Your task to perform on an android device: find which apps use the phone's location Image 0: 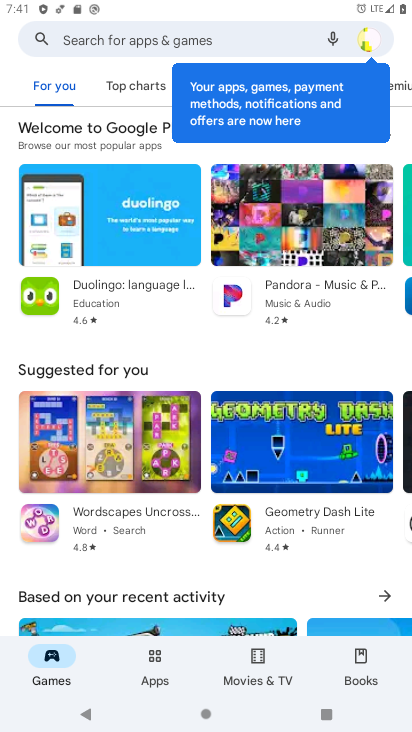
Step 0: press home button
Your task to perform on an android device: find which apps use the phone's location Image 1: 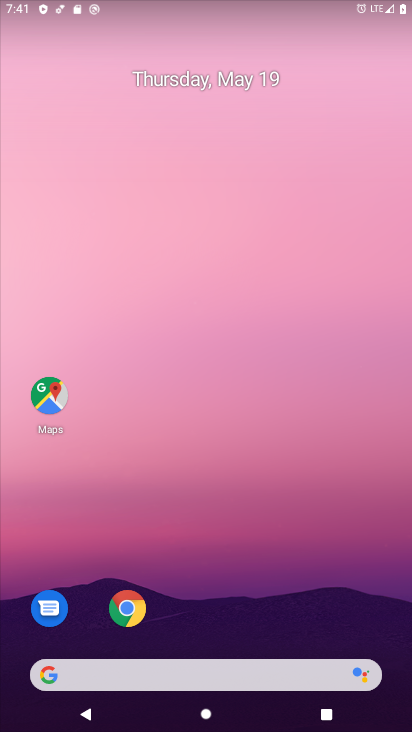
Step 1: drag from (381, 560) to (347, 254)
Your task to perform on an android device: find which apps use the phone's location Image 2: 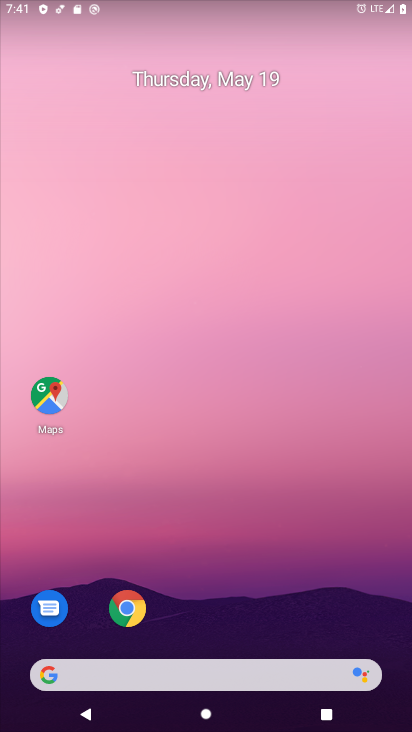
Step 2: click (371, 336)
Your task to perform on an android device: find which apps use the phone's location Image 3: 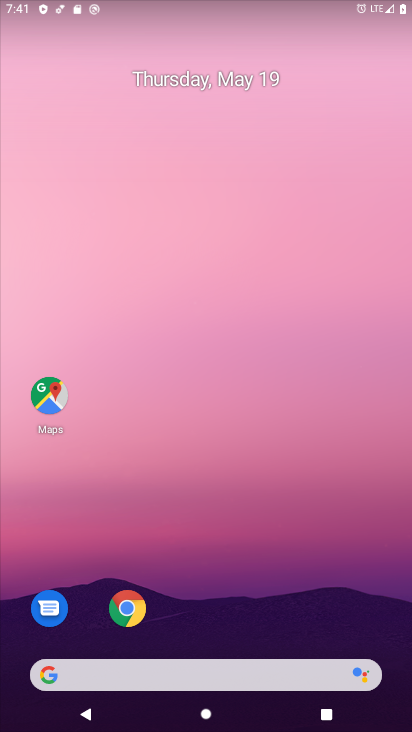
Step 3: drag from (391, 534) to (402, 301)
Your task to perform on an android device: find which apps use the phone's location Image 4: 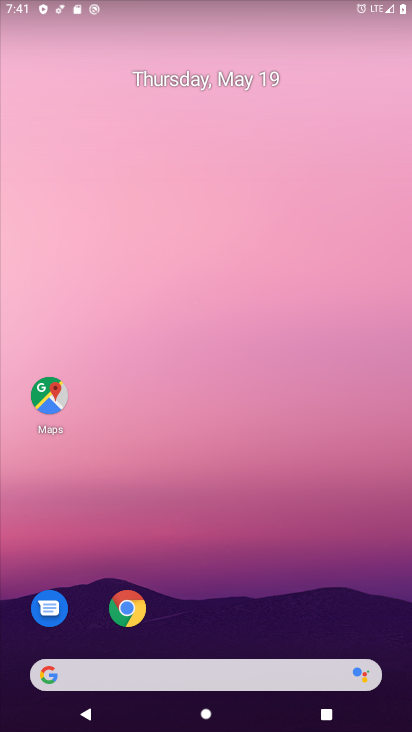
Step 4: drag from (382, 641) to (332, 130)
Your task to perform on an android device: find which apps use the phone's location Image 5: 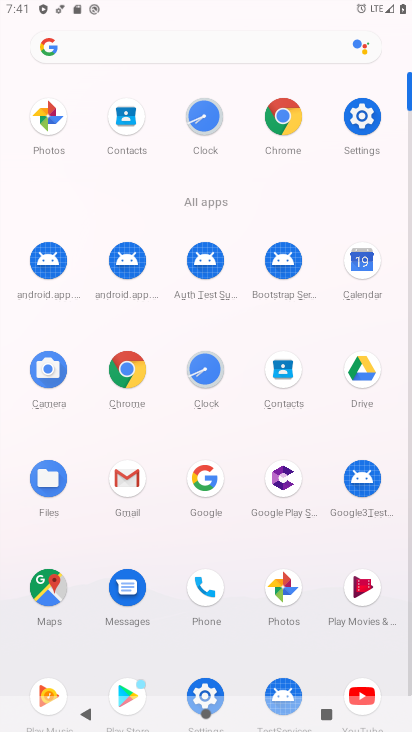
Step 5: click (366, 121)
Your task to perform on an android device: find which apps use the phone's location Image 6: 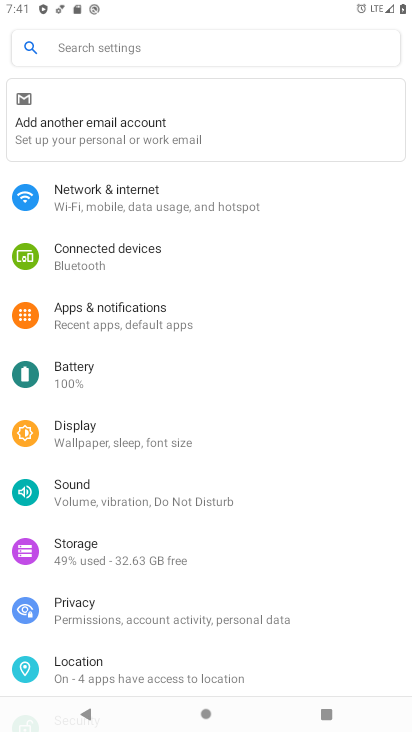
Step 6: click (102, 670)
Your task to perform on an android device: find which apps use the phone's location Image 7: 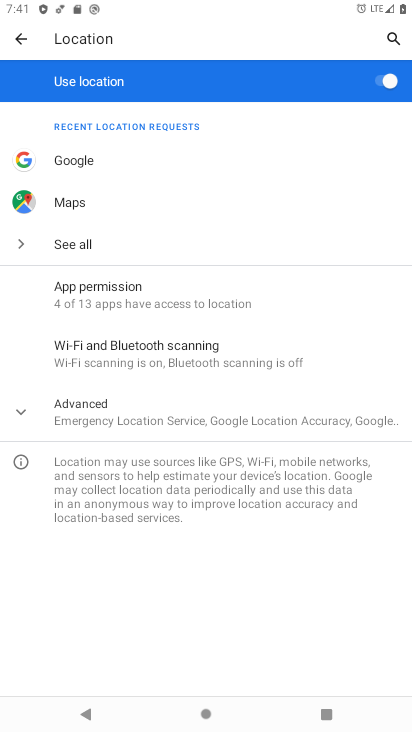
Step 7: click (65, 292)
Your task to perform on an android device: find which apps use the phone's location Image 8: 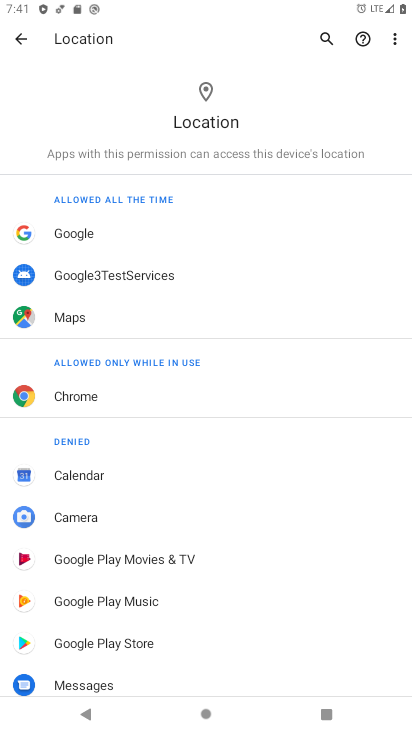
Step 8: task complete